Your task to perform on an android device: Clear the shopping cart on ebay.com. Add jbl flip 4 to the cart on ebay.com, then select checkout. Image 0: 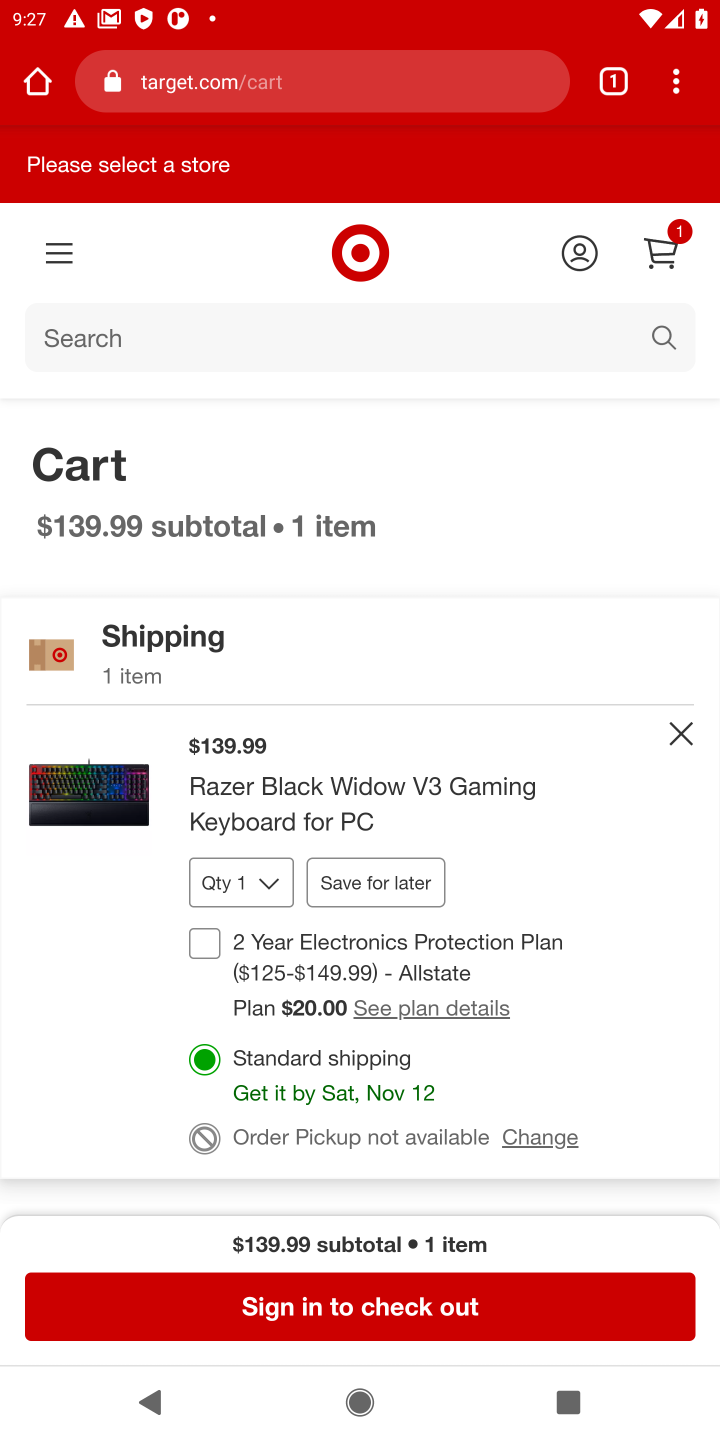
Step 0: press home button
Your task to perform on an android device: Clear the shopping cart on ebay.com. Add jbl flip 4 to the cart on ebay.com, then select checkout. Image 1: 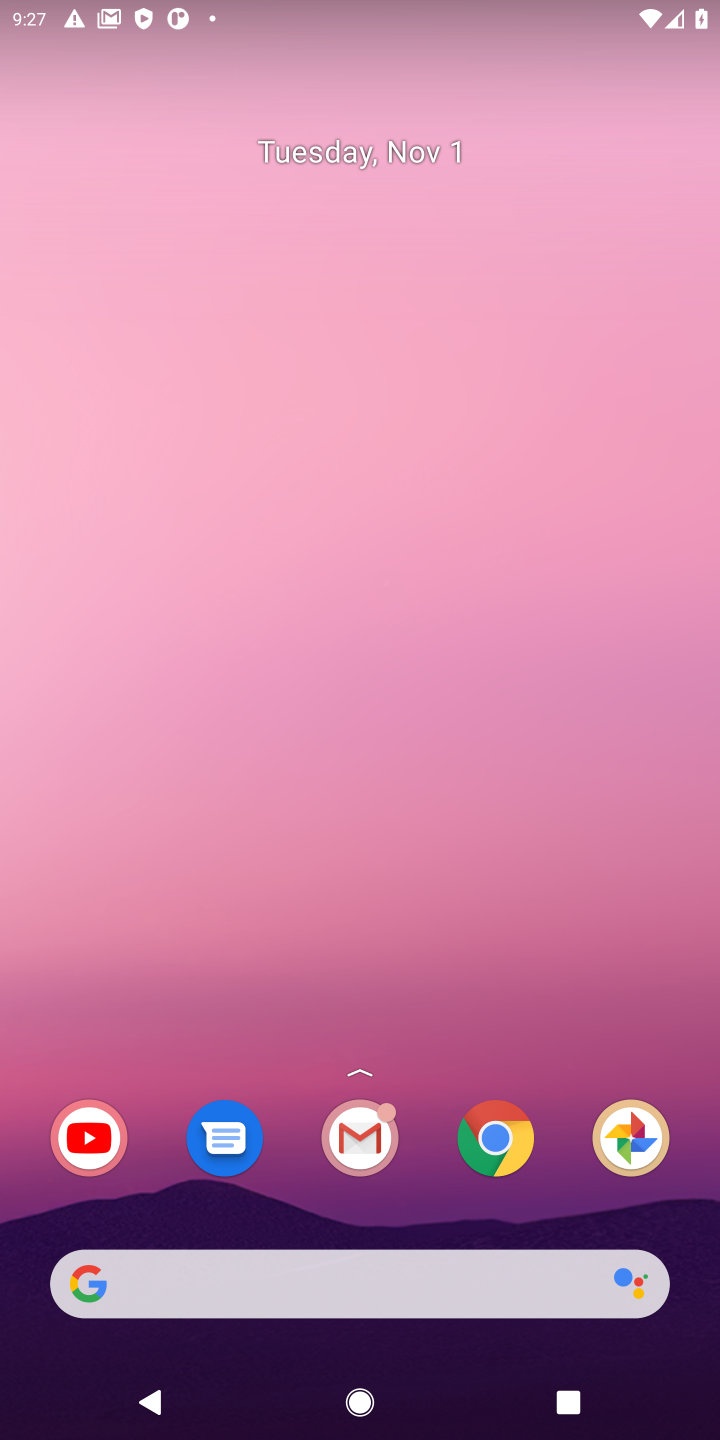
Step 1: click (510, 1149)
Your task to perform on an android device: Clear the shopping cart on ebay.com. Add jbl flip 4 to the cart on ebay.com, then select checkout. Image 2: 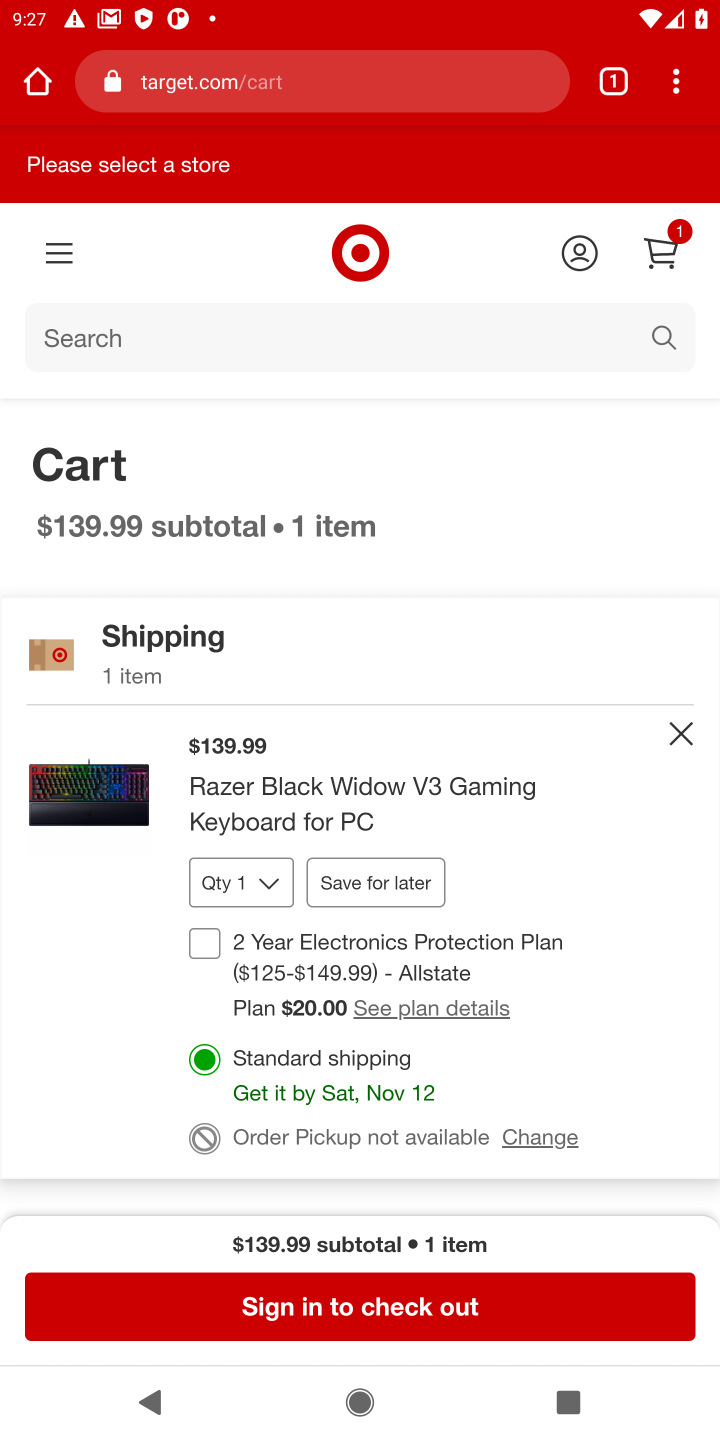
Step 2: click (219, 88)
Your task to perform on an android device: Clear the shopping cart on ebay.com. Add jbl flip 4 to the cart on ebay.com, then select checkout. Image 3: 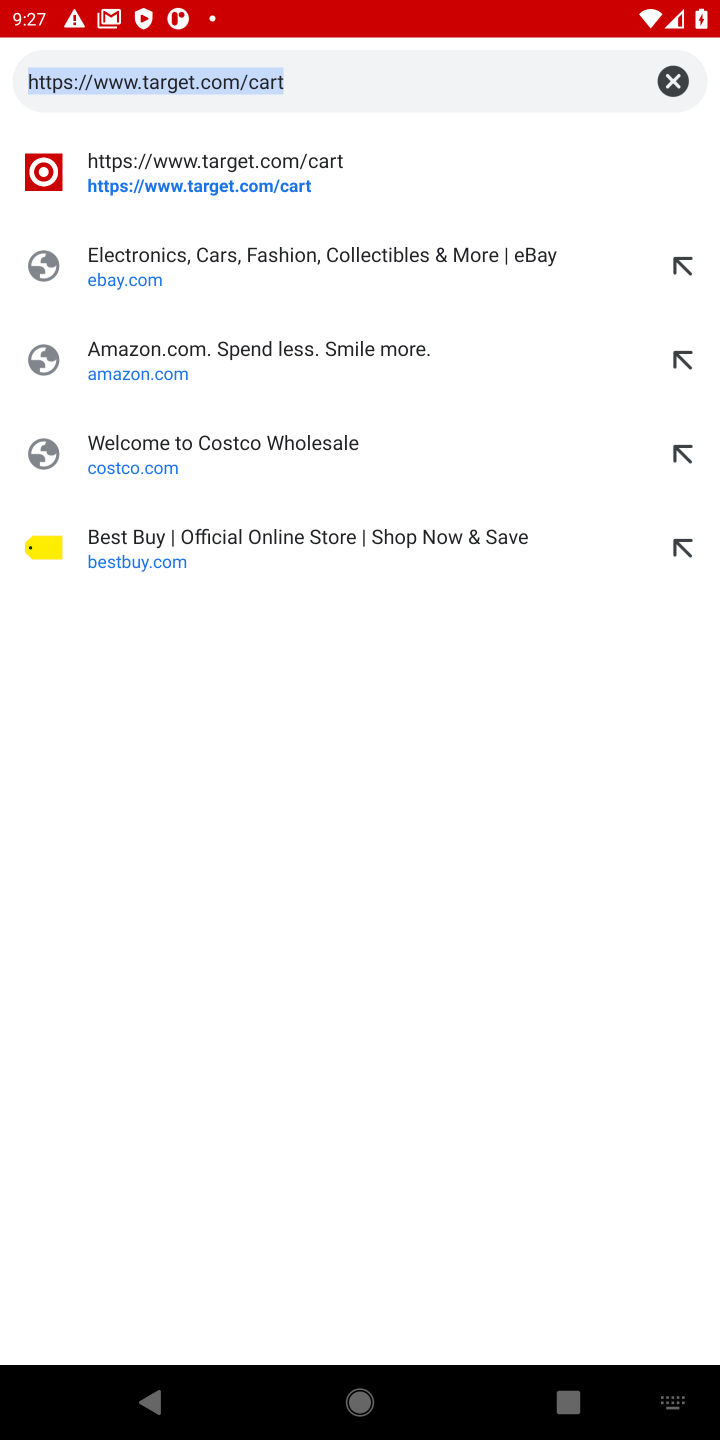
Step 3: type "ebay.com"
Your task to perform on an android device: Clear the shopping cart on ebay.com. Add jbl flip 4 to the cart on ebay.com, then select checkout. Image 4: 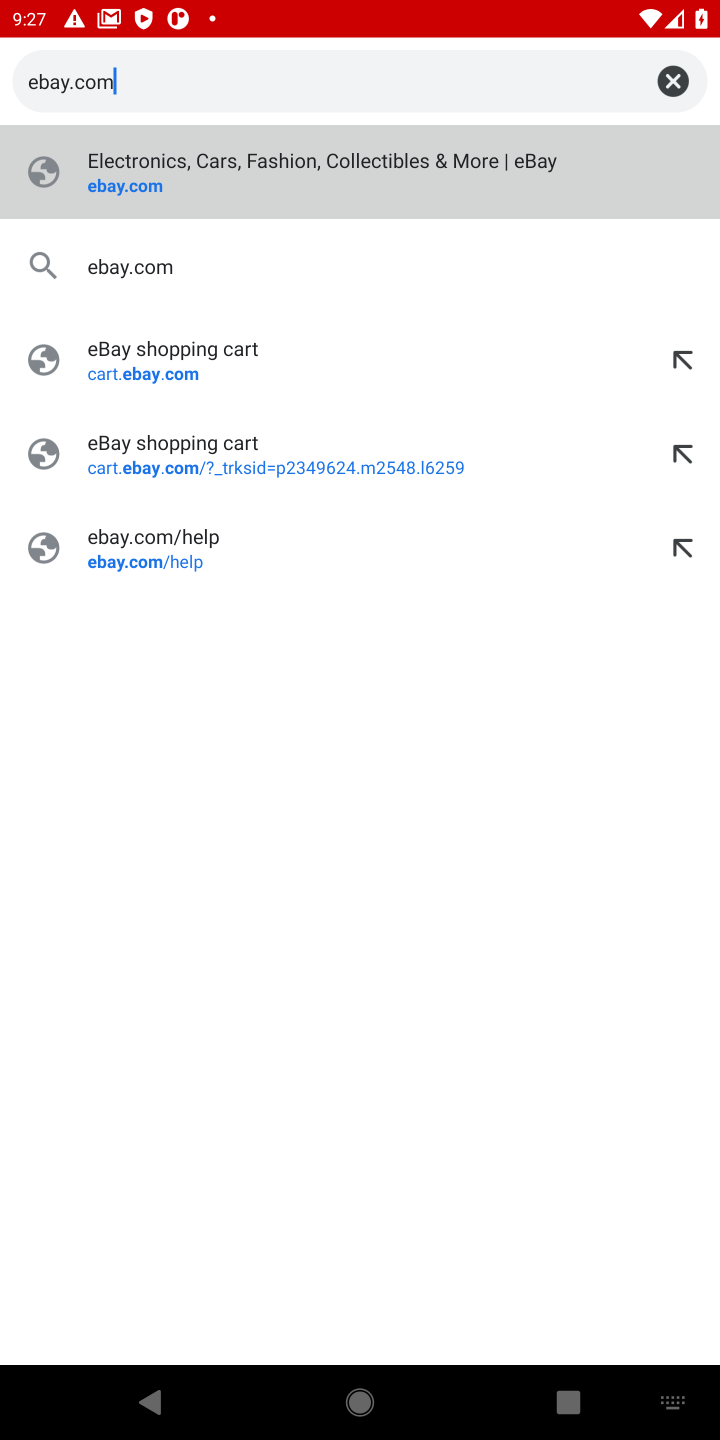
Step 4: click (130, 190)
Your task to perform on an android device: Clear the shopping cart on ebay.com. Add jbl flip 4 to the cart on ebay.com, then select checkout. Image 5: 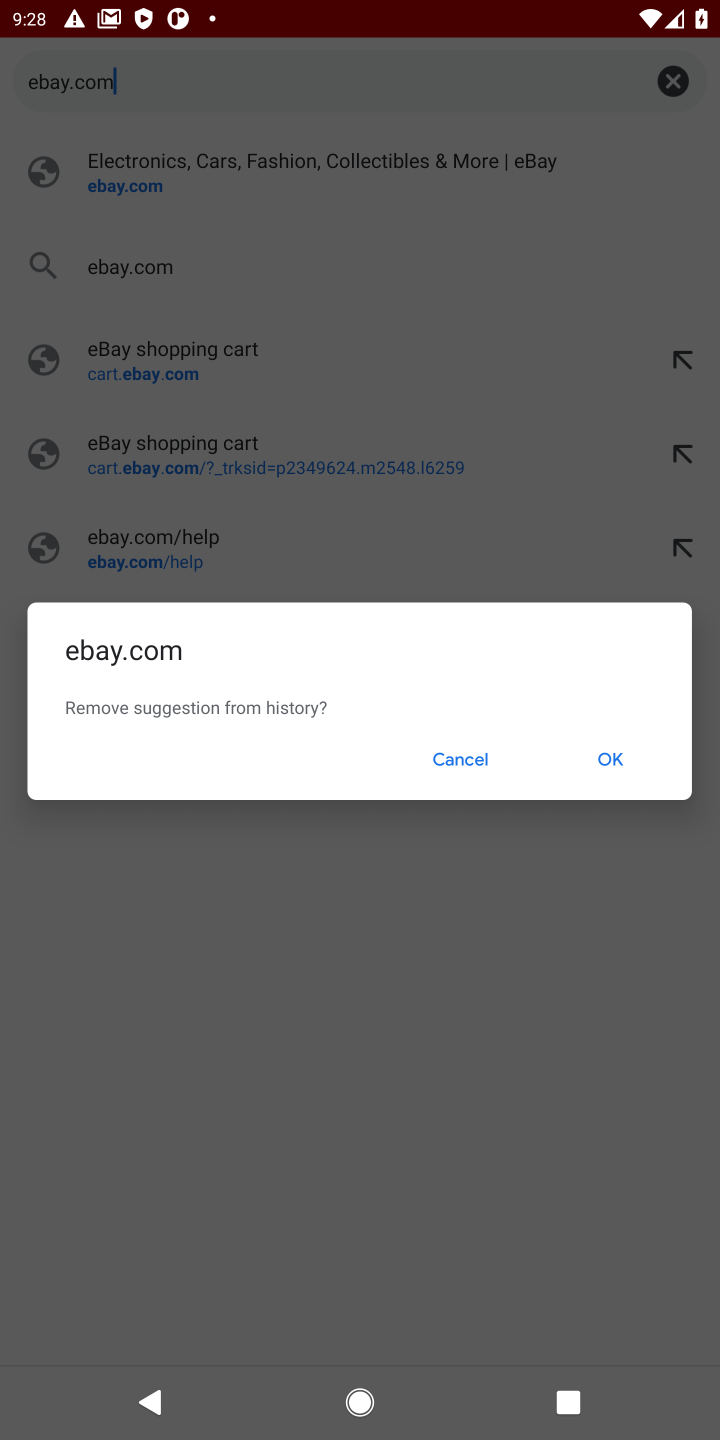
Step 5: click (450, 761)
Your task to perform on an android device: Clear the shopping cart on ebay.com. Add jbl flip 4 to the cart on ebay.com, then select checkout. Image 6: 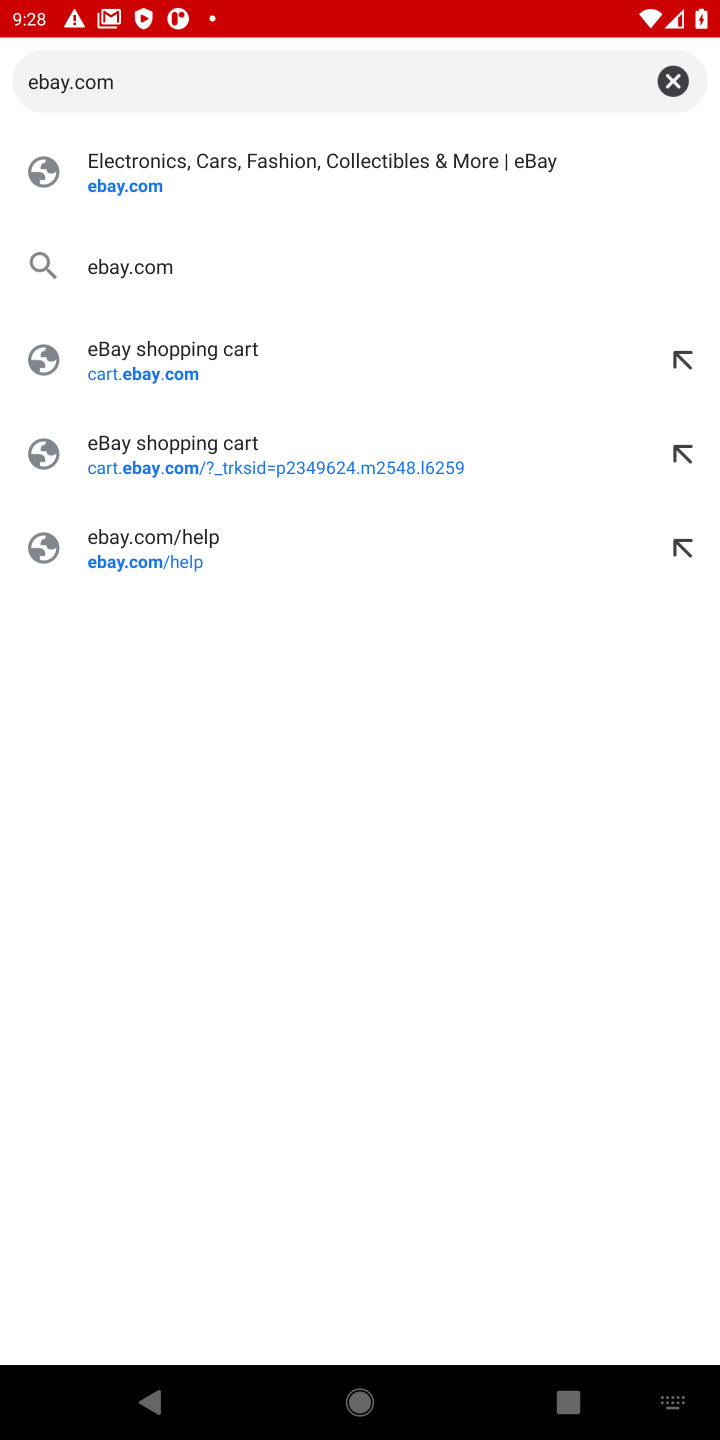
Step 6: click (106, 189)
Your task to perform on an android device: Clear the shopping cart on ebay.com. Add jbl flip 4 to the cart on ebay.com, then select checkout. Image 7: 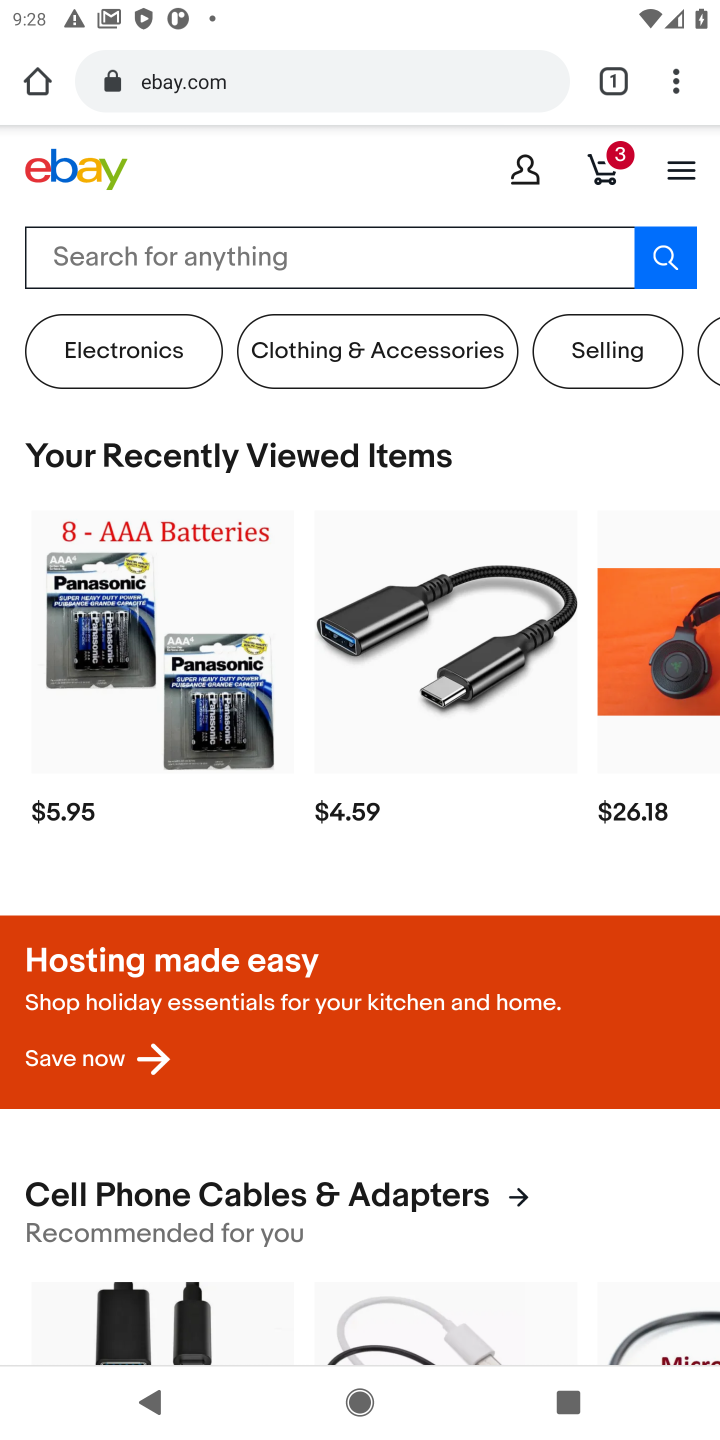
Step 7: click (606, 175)
Your task to perform on an android device: Clear the shopping cart on ebay.com. Add jbl flip 4 to the cart on ebay.com, then select checkout. Image 8: 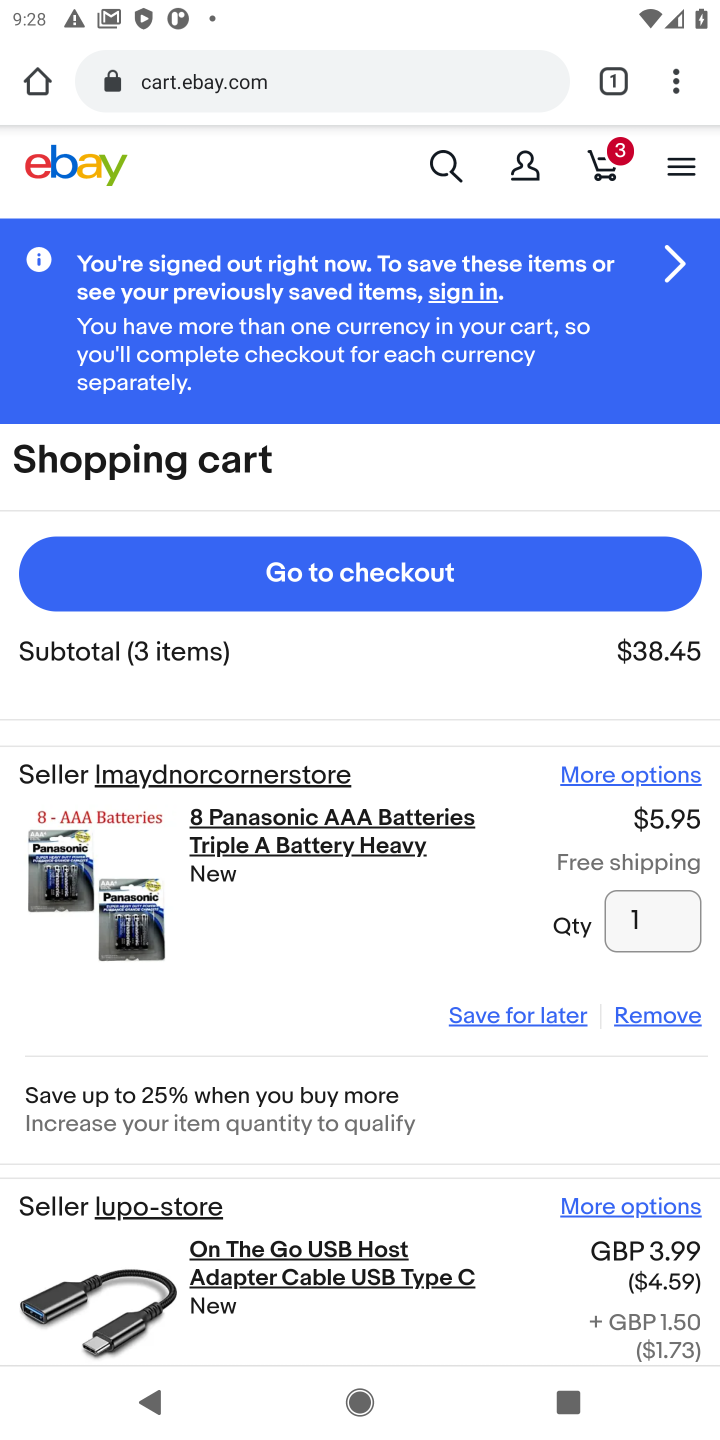
Step 8: click (627, 1013)
Your task to perform on an android device: Clear the shopping cart on ebay.com. Add jbl flip 4 to the cart on ebay.com, then select checkout. Image 9: 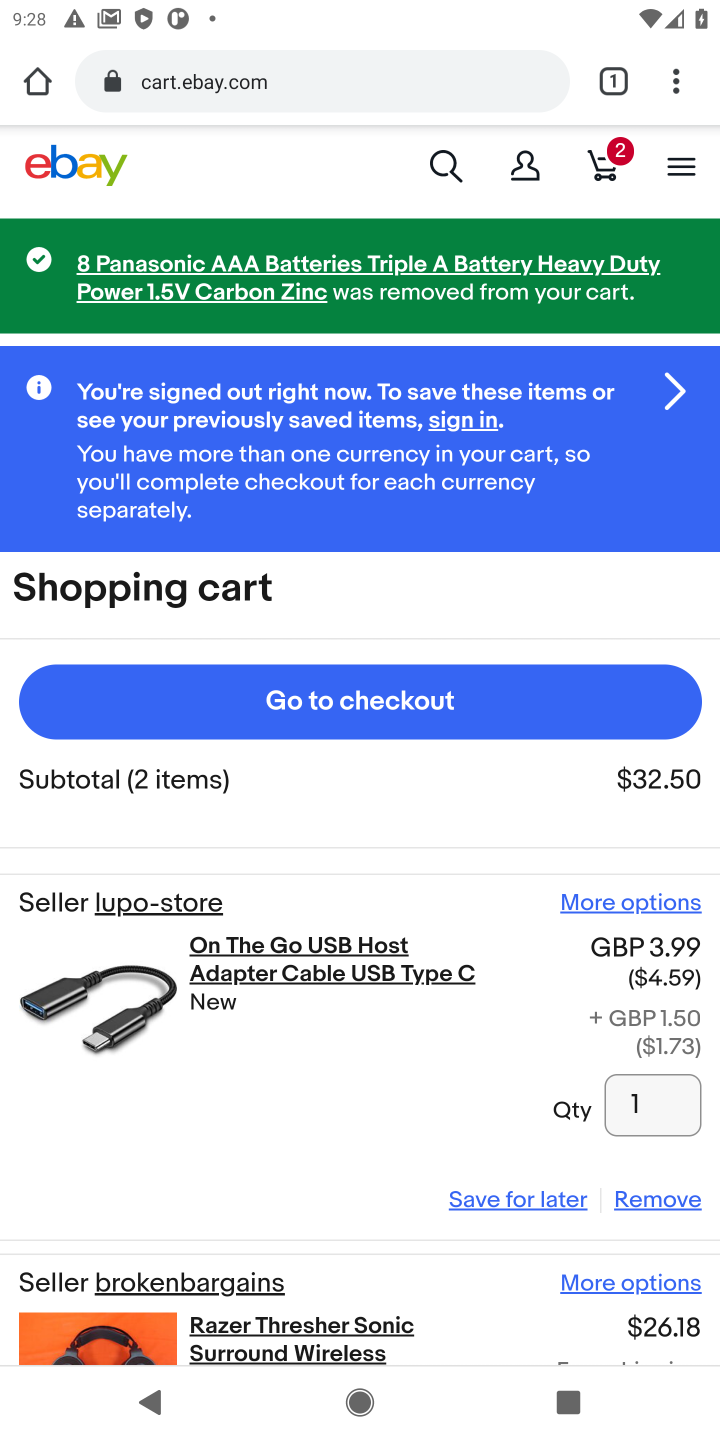
Step 9: click (648, 1211)
Your task to perform on an android device: Clear the shopping cart on ebay.com. Add jbl flip 4 to the cart on ebay.com, then select checkout. Image 10: 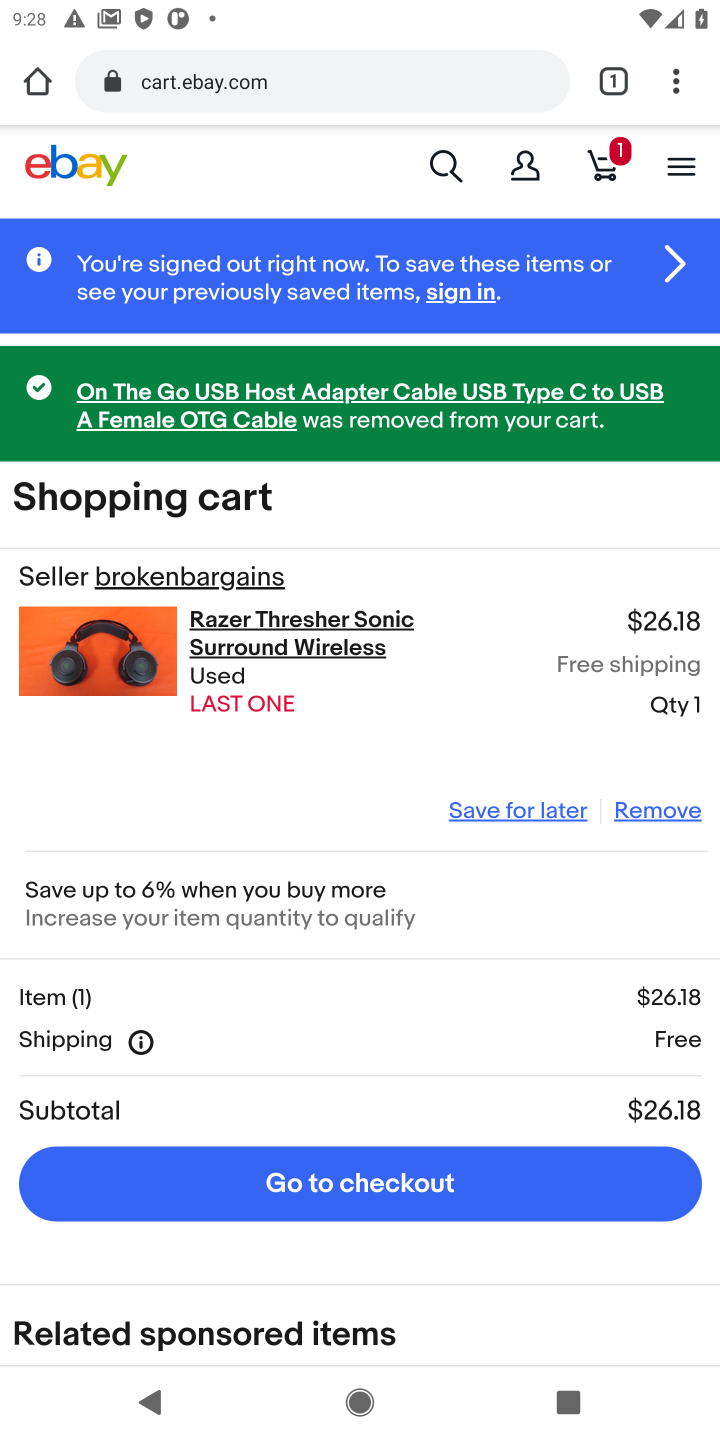
Step 10: click (667, 809)
Your task to perform on an android device: Clear the shopping cart on ebay.com. Add jbl flip 4 to the cart on ebay.com, then select checkout. Image 11: 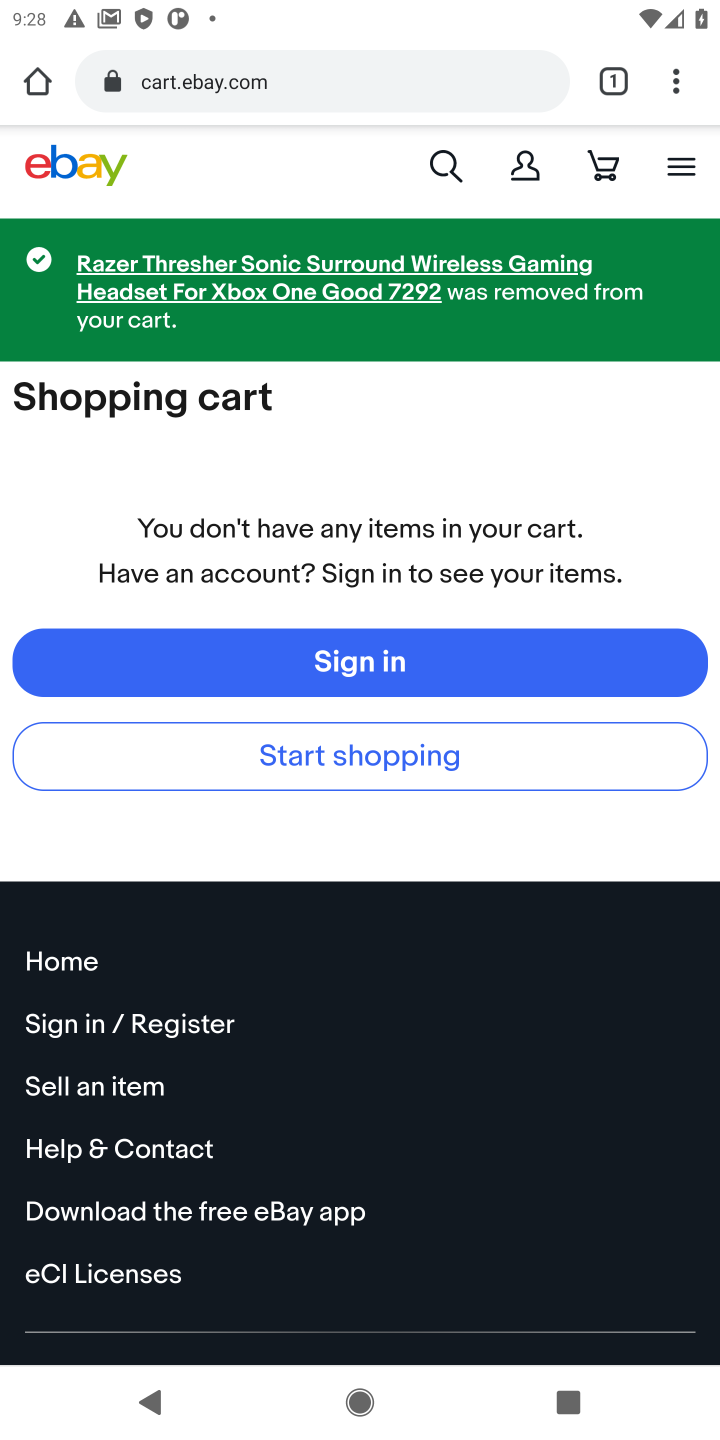
Step 11: click (444, 163)
Your task to perform on an android device: Clear the shopping cart on ebay.com. Add jbl flip 4 to the cart on ebay.com, then select checkout. Image 12: 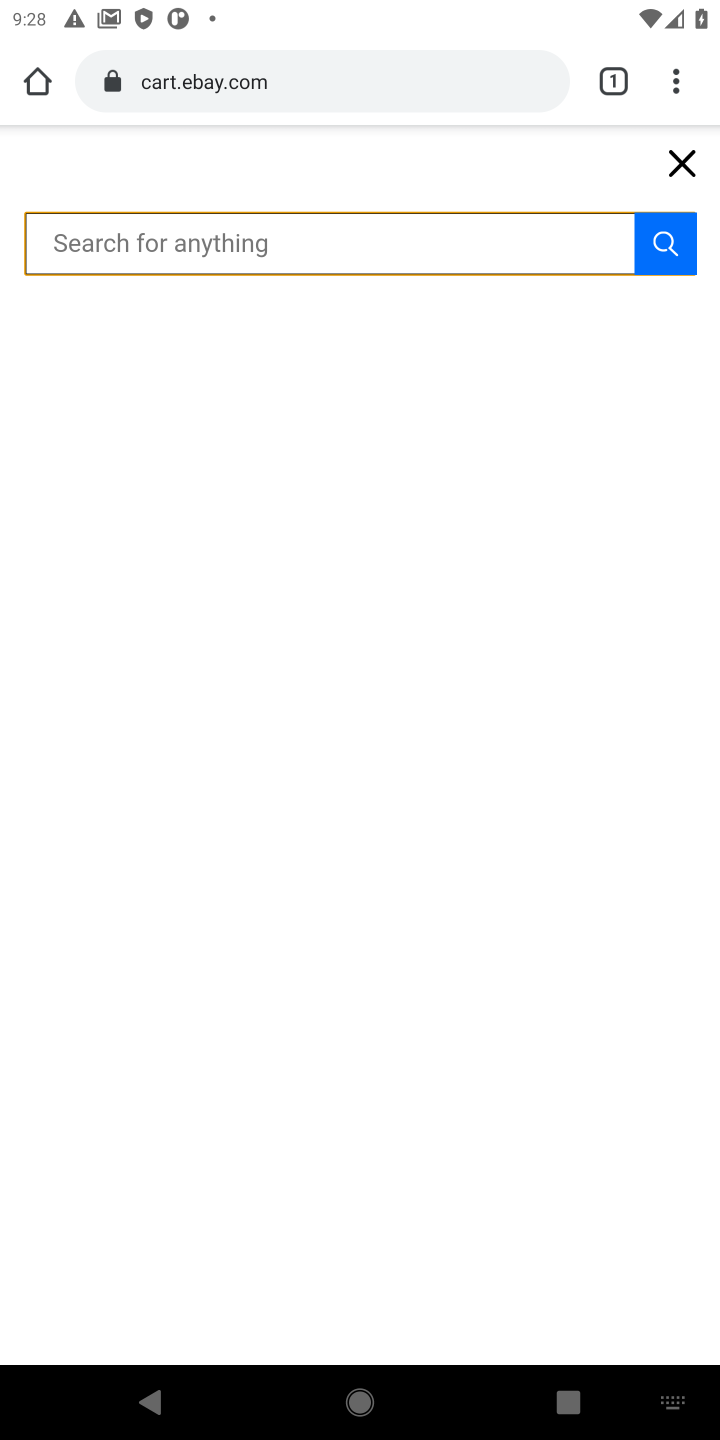
Step 12: type "jbl flip 4"
Your task to perform on an android device: Clear the shopping cart on ebay.com. Add jbl flip 4 to the cart on ebay.com, then select checkout. Image 13: 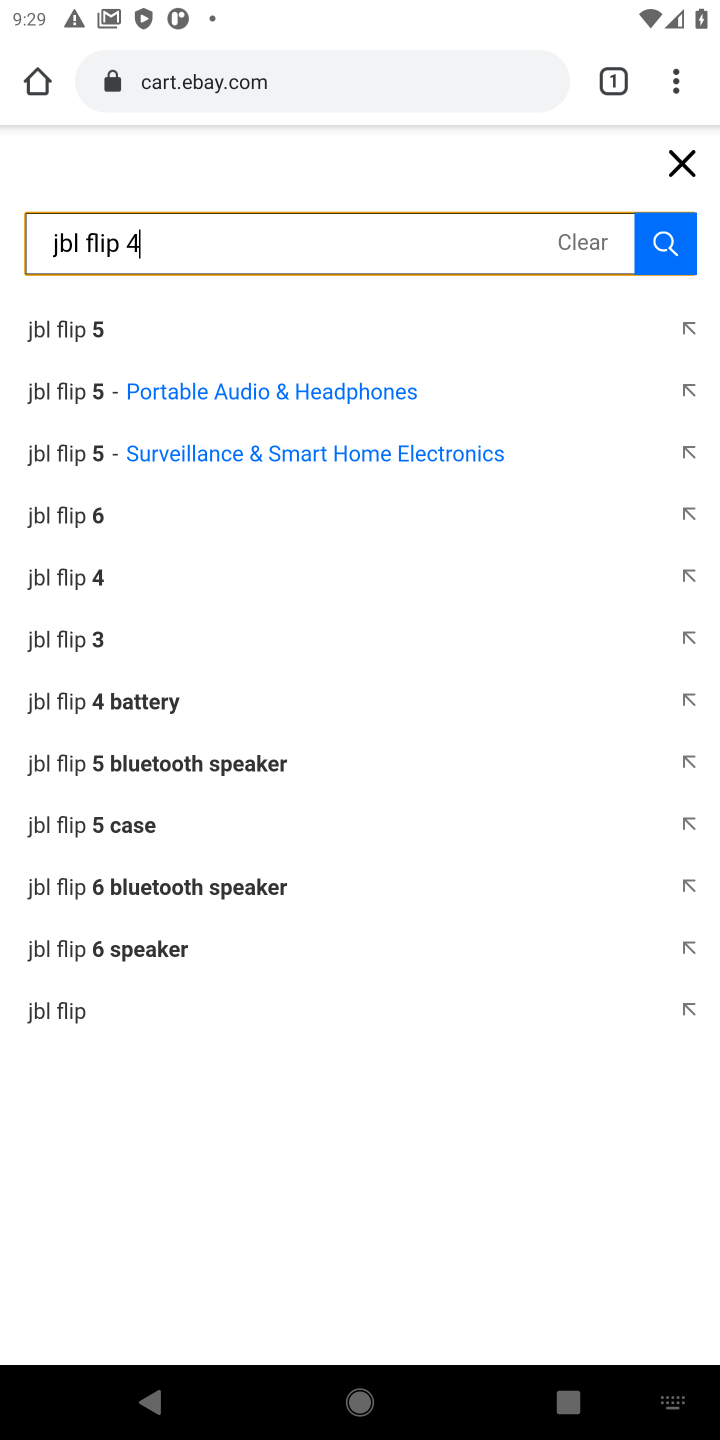
Step 13: click (49, 574)
Your task to perform on an android device: Clear the shopping cart on ebay.com. Add jbl flip 4 to the cart on ebay.com, then select checkout. Image 14: 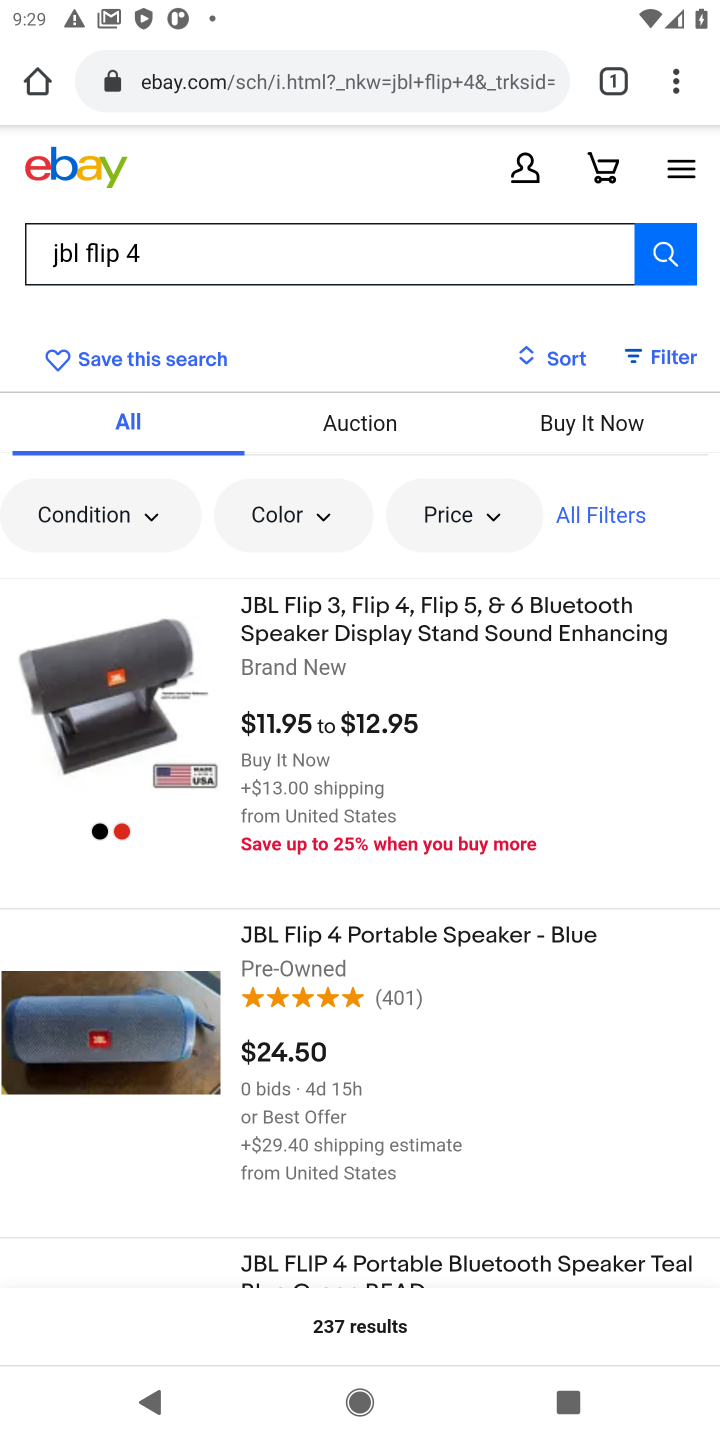
Step 14: click (250, 684)
Your task to perform on an android device: Clear the shopping cart on ebay.com. Add jbl flip 4 to the cart on ebay.com, then select checkout. Image 15: 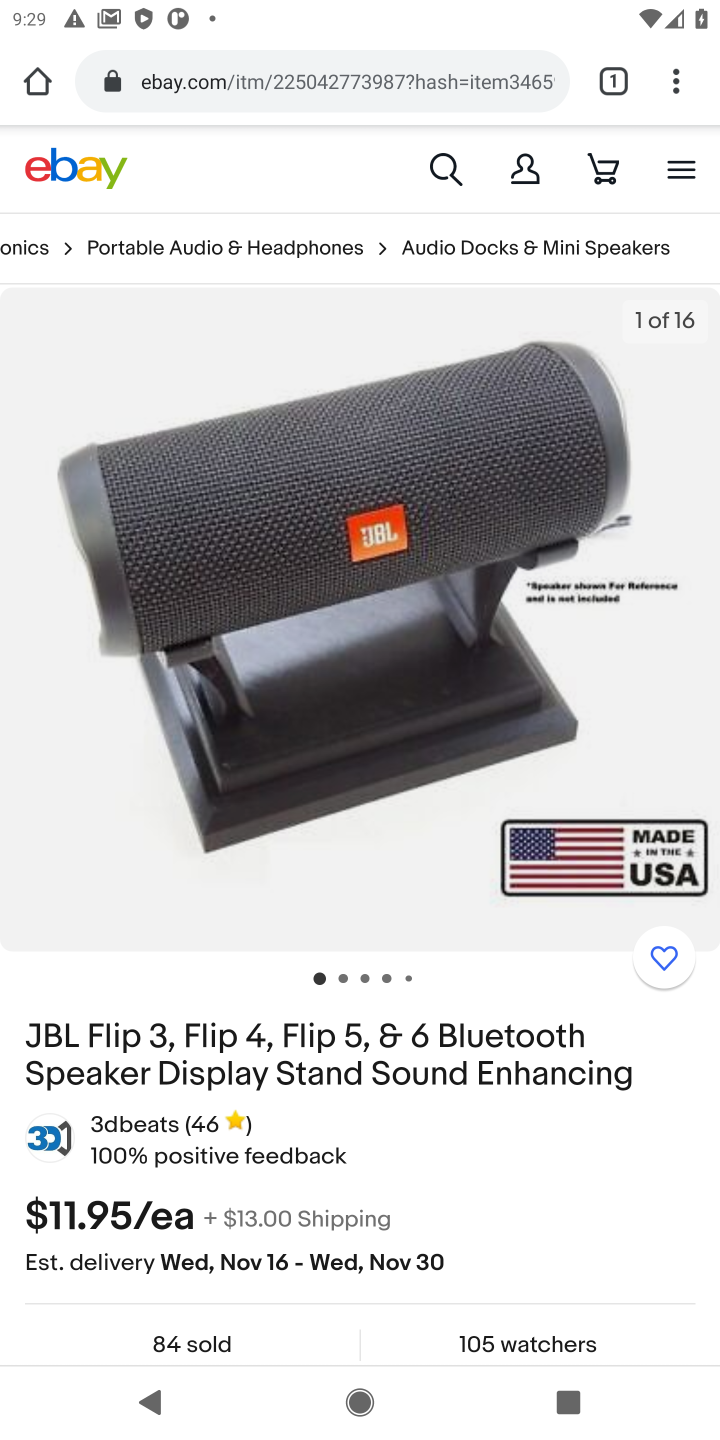
Step 15: drag from (347, 1102) to (340, 353)
Your task to perform on an android device: Clear the shopping cart on ebay.com. Add jbl flip 4 to the cart on ebay.com, then select checkout. Image 16: 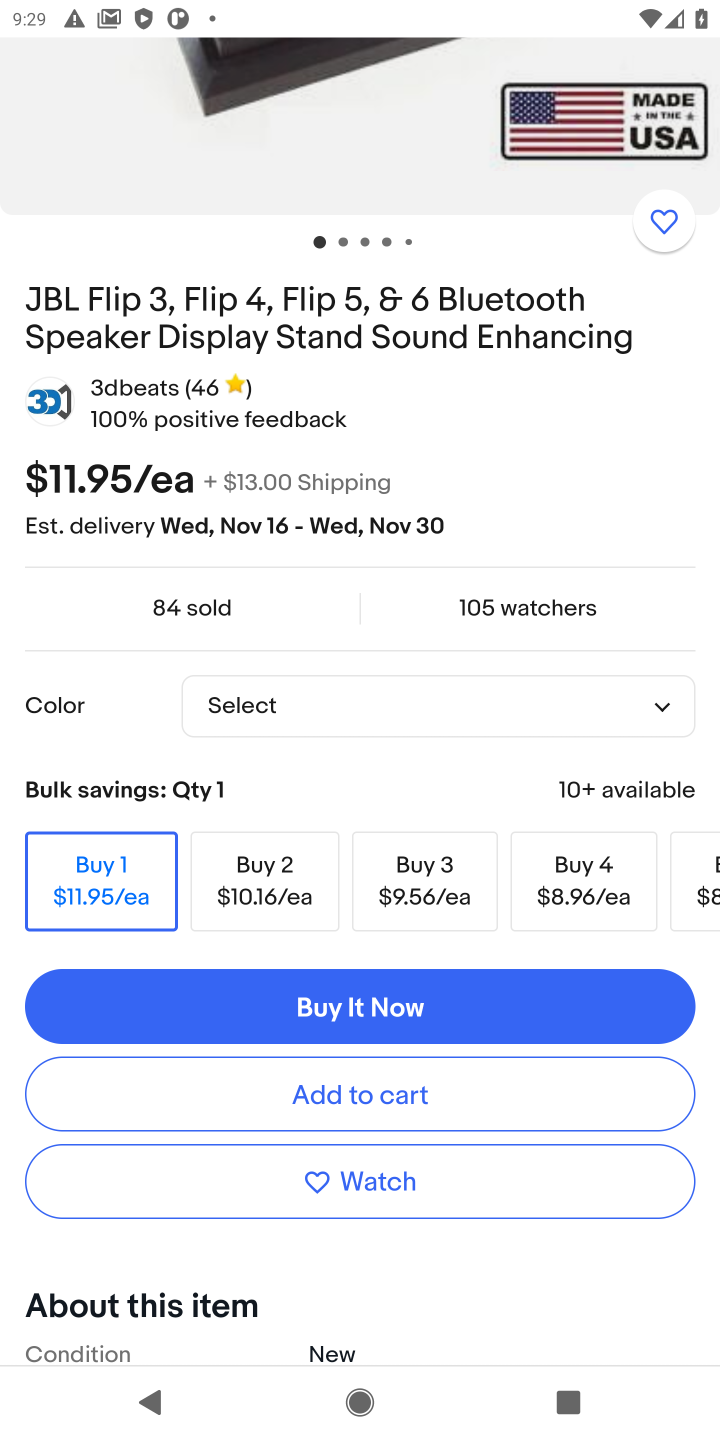
Step 16: click (349, 1094)
Your task to perform on an android device: Clear the shopping cart on ebay.com. Add jbl flip 4 to the cart on ebay.com, then select checkout. Image 17: 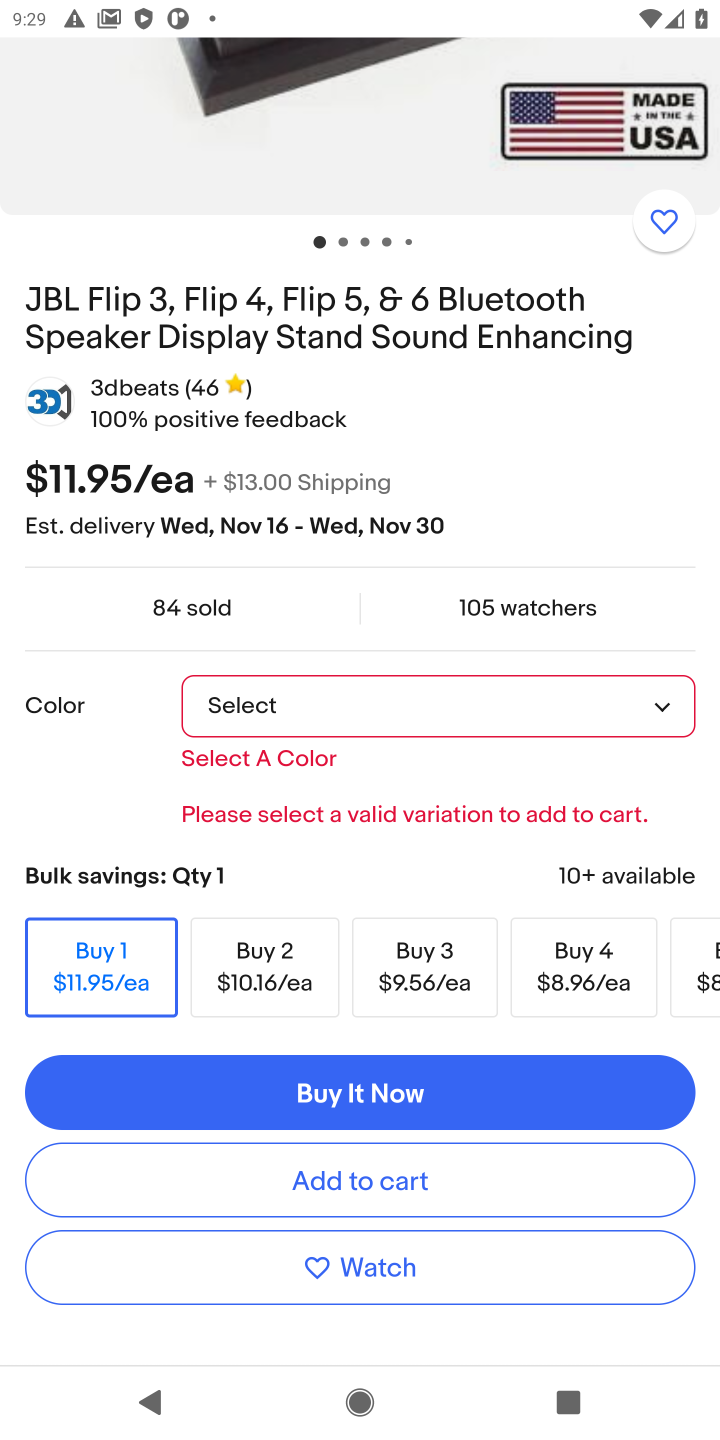
Step 17: click (662, 696)
Your task to perform on an android device: Clear the shopping cart on ebay.com. Add jbl flip 4 to the cart on ebay.com, then select checkout. Image 18: 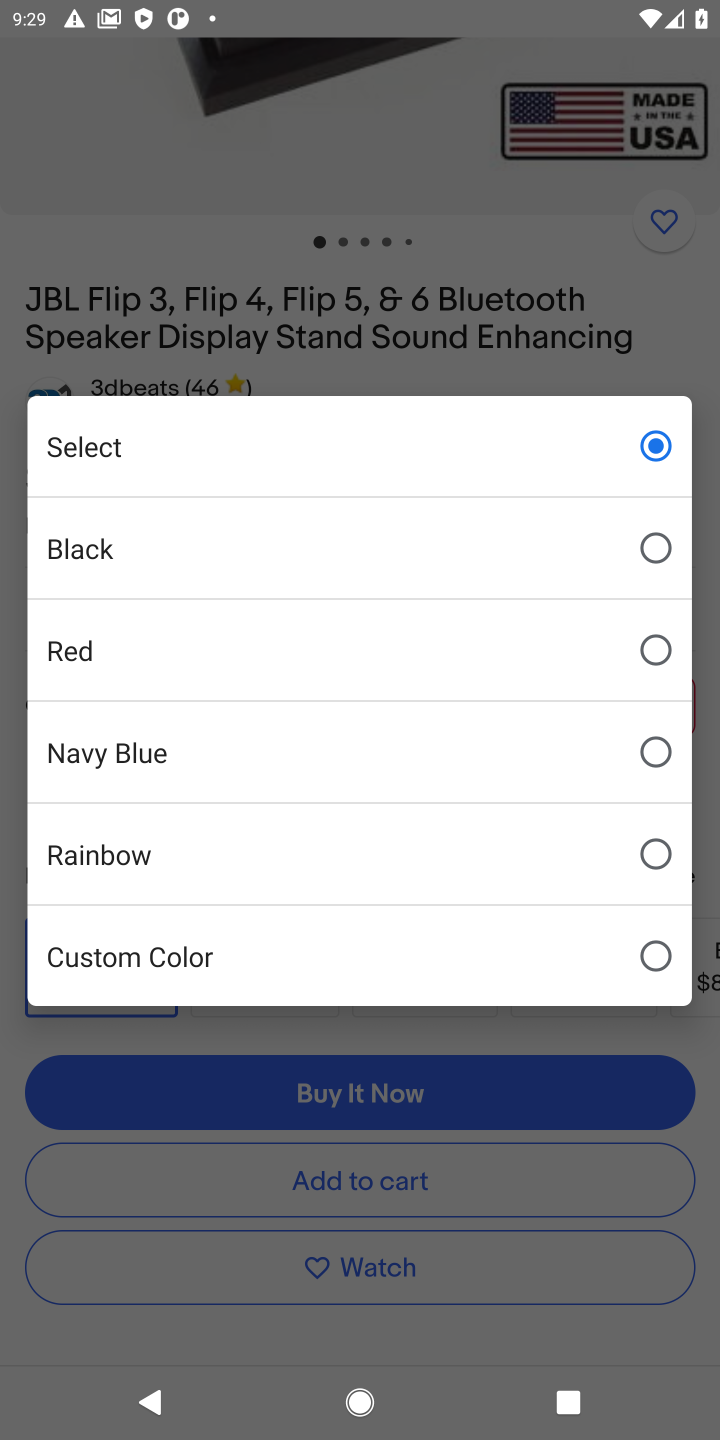
Step 18: click (78, 545)
Your task to perform on an android device: Clear the shopping cart on ebay.com. Add jbl flip 4 to the cart on ebay.com, then select checkout. Image 19: 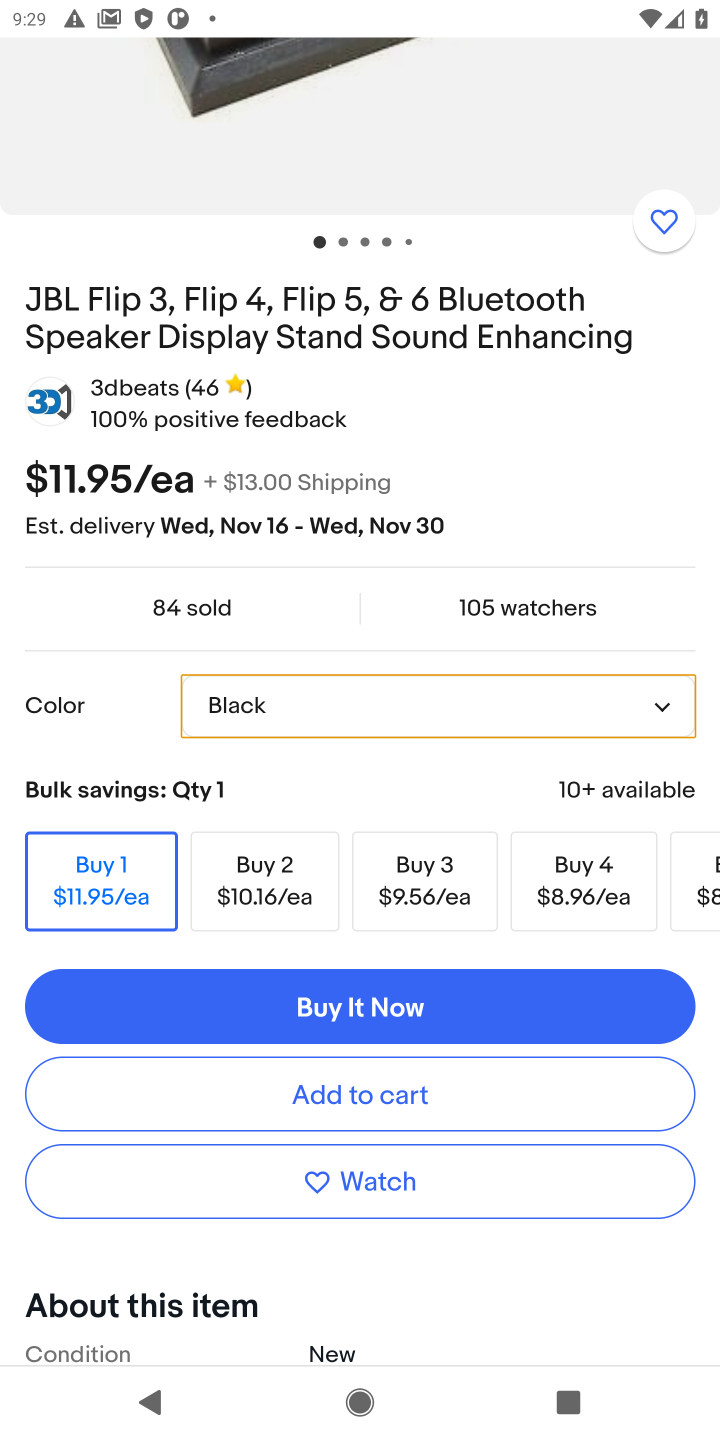
Step 19: click (343, 1103)
Your task to perform on an android device: Clear the shopping cart on ebay.com. Add jbl flip 4 to the cart on ebay.com, then select checkout. Image 20: 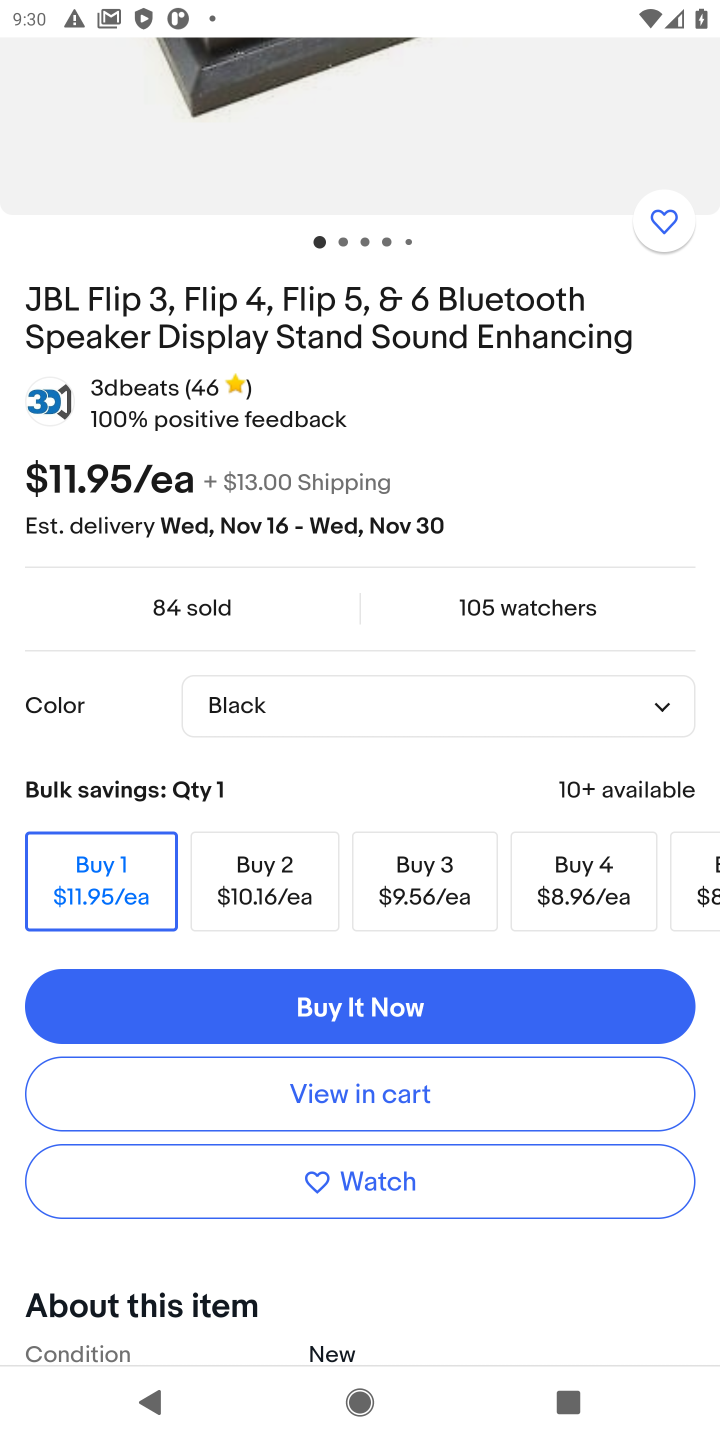
Step 20: click (343, 1103)
Your task to perform on an android device: Clear the shopping cart on ebay.com. Add jbl flip 4 to the cart on ebay.com, then select checkout. Image 21: 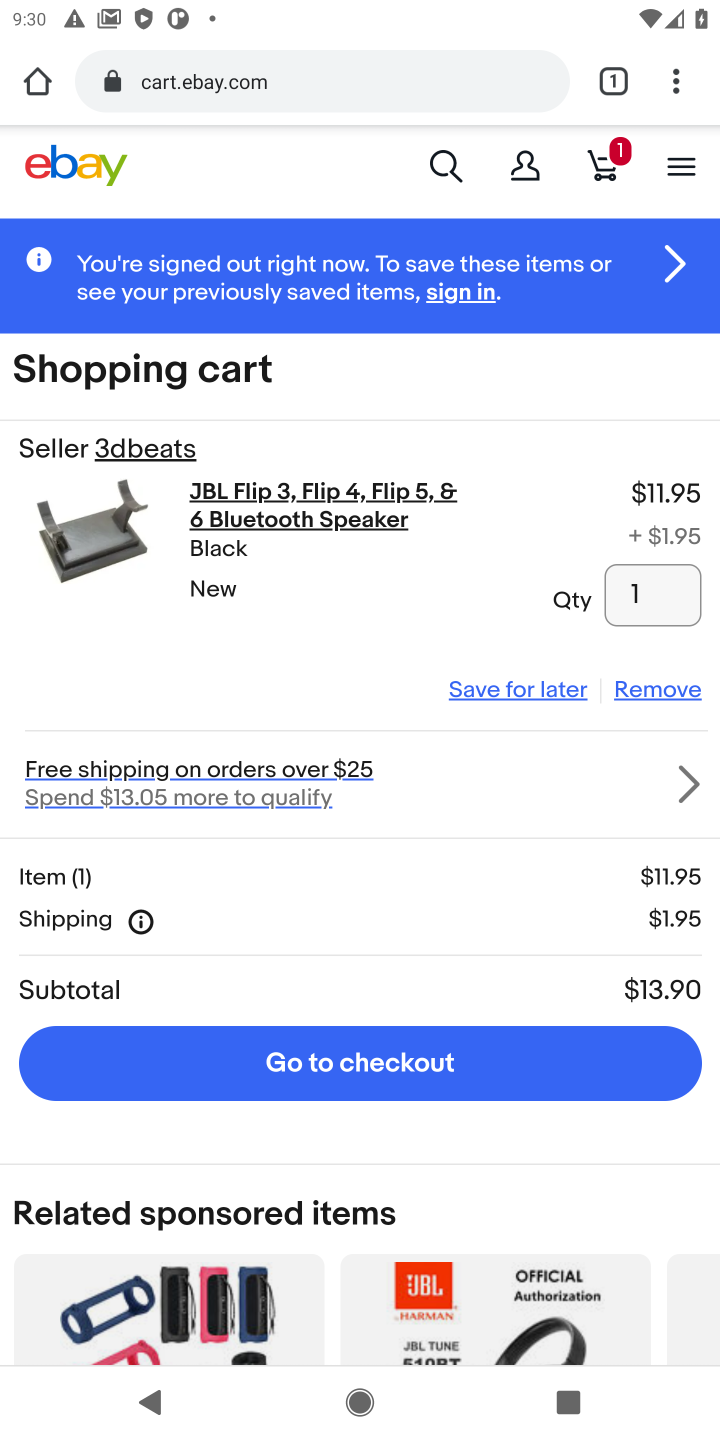
Step 21: click (340, 1065)
Your task to perform on an android device: Clear the shopping cart on ebay.com. Add jbl flip 4 to the cart on ebay.com, then select checkout. Image 22: 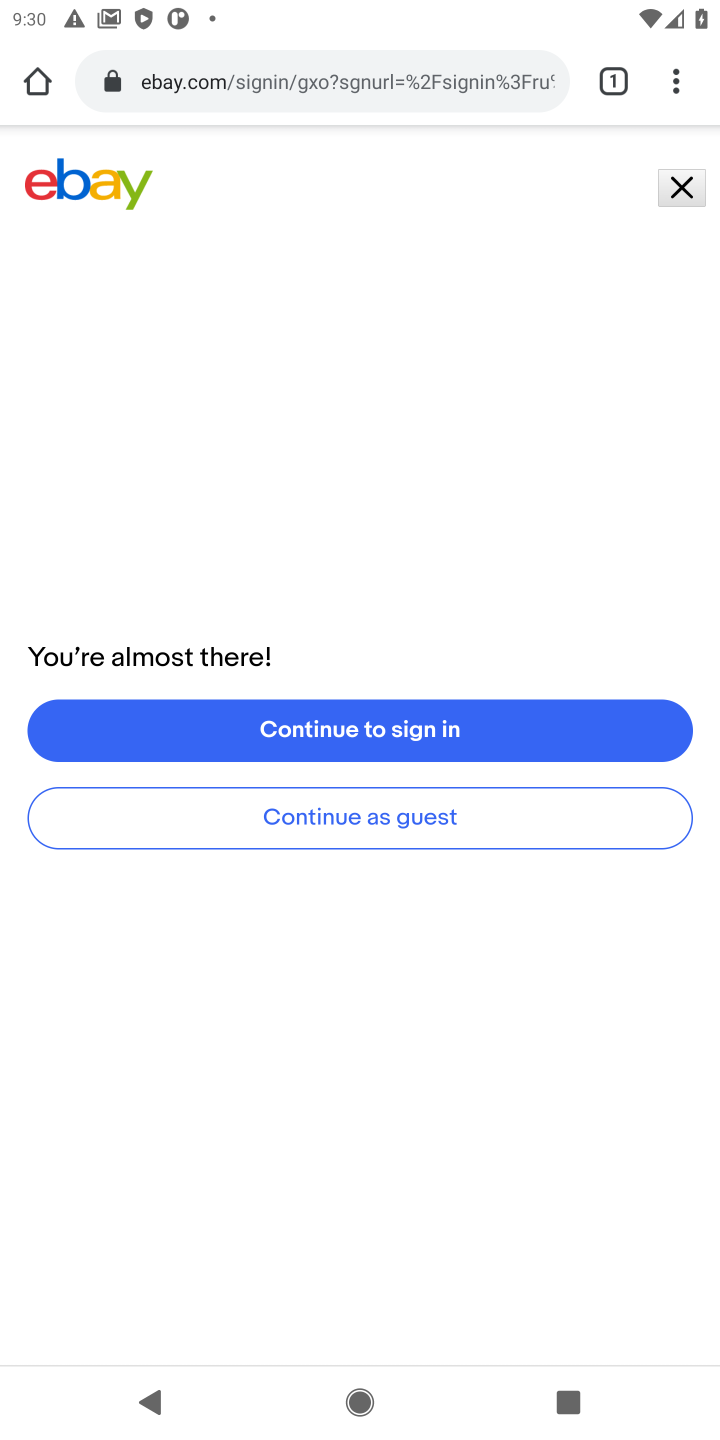
Step 22: task complete